Your task to perform on an android device: Open Google Chrome and open the bookmarks view Image 0: 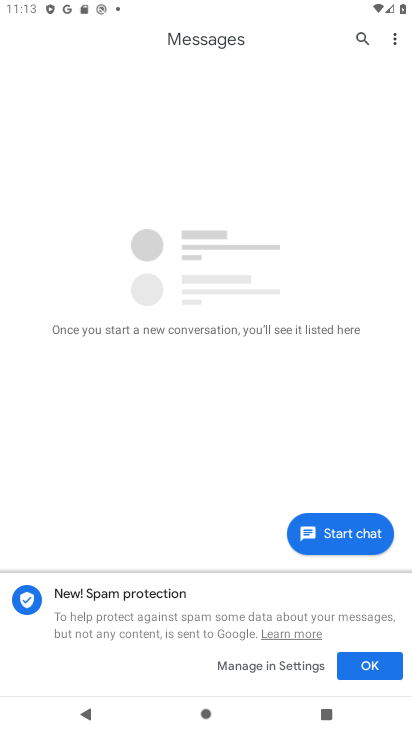
Step 0: press home button
Your task to perform on an android device: Open Google Chrome and open the bookmarks view Image 1: 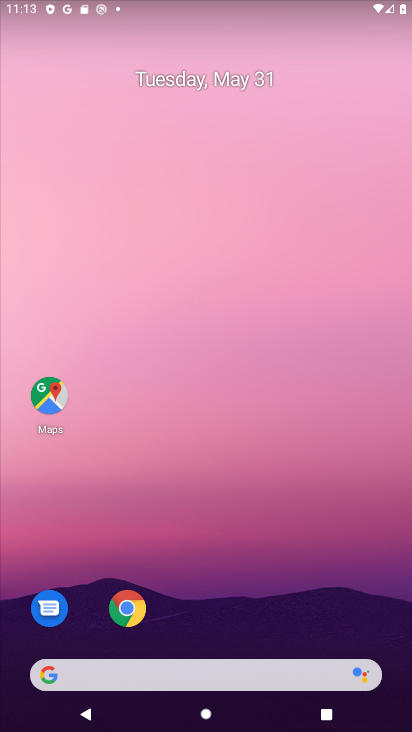
Step 1: click (126, 607)
Your task to perform on an android device: Open Google Chrome and open the bookmarks view Image 2: 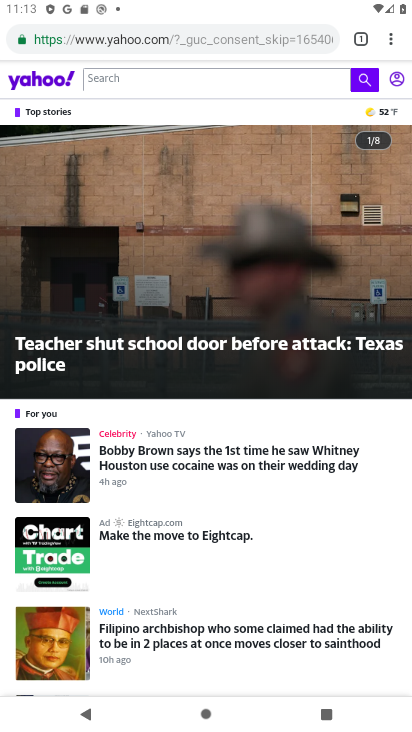
Step 2: task complete